Your task to perform on an android device: Go to location settings Image 0: 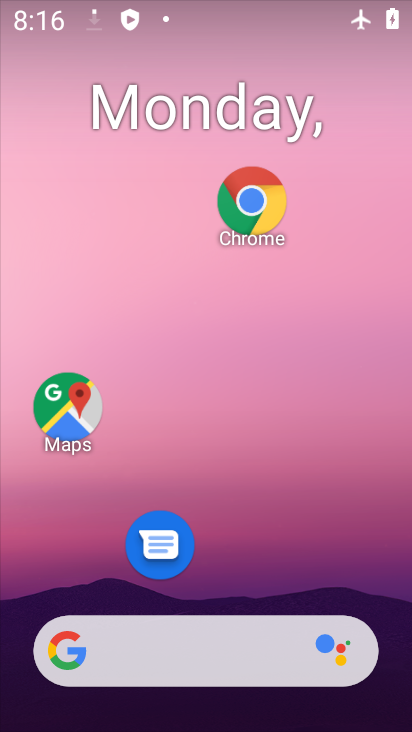
Step 0: drag from (224, 370) to (218, 35)
Your task to perform on an android device: Go to location settings Image 1: 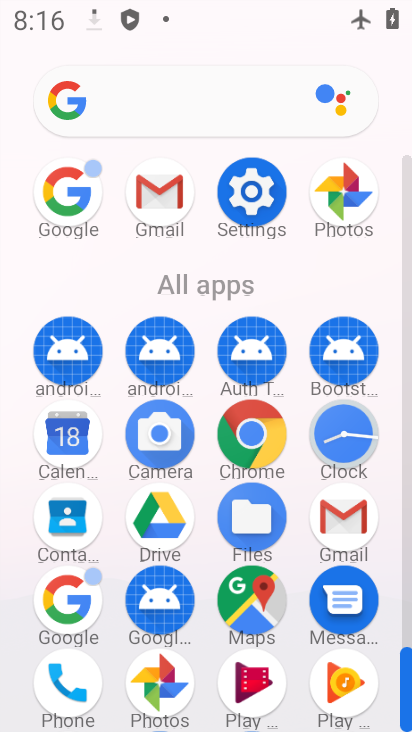
Step 1: click (250, 198)
Your task to perform on an android device: Go to location settings Image 2: 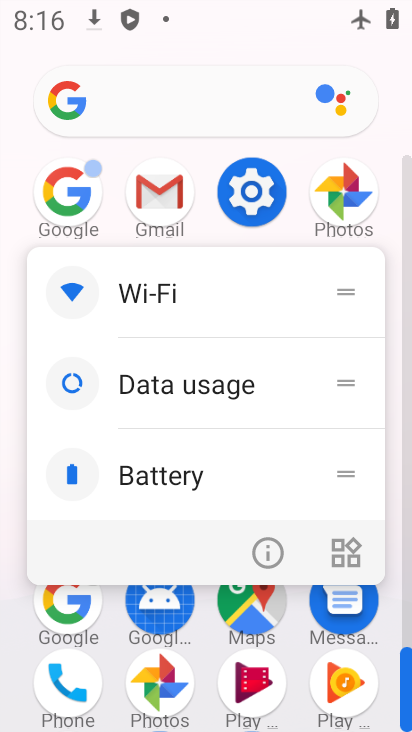
Step 2: click (246, 200)
Your task to perform on an android device: Go to location settings Image 3: 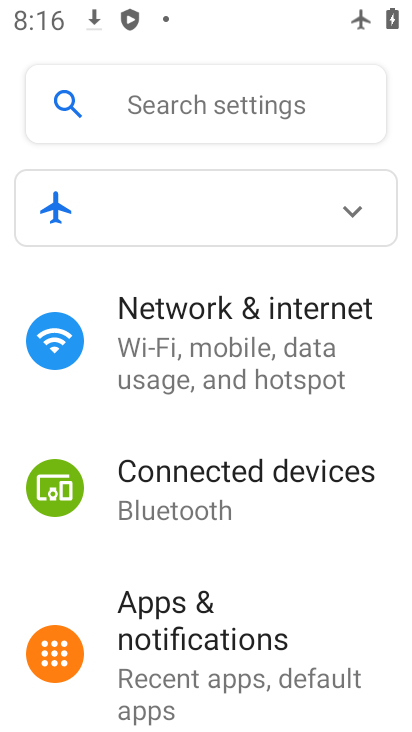
Step 3: drag from (279, 634) to (279, 265)
Your task to perform on an android device: Go to location settings Image 4: 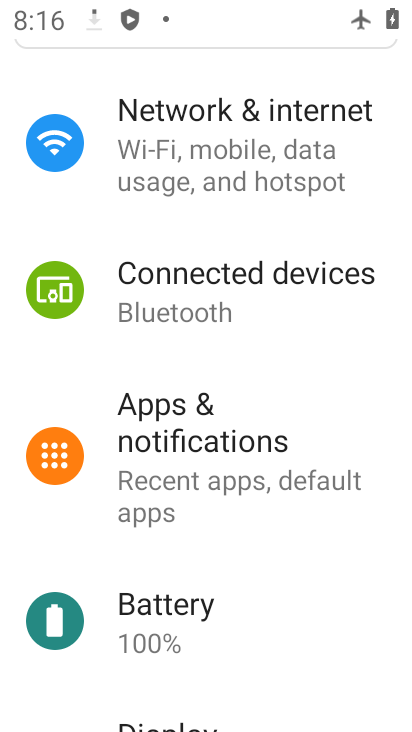
Step 4: drag from (276, 591) to (276, 200)
Your task to perform on an android device: Go to location settings Image 5: 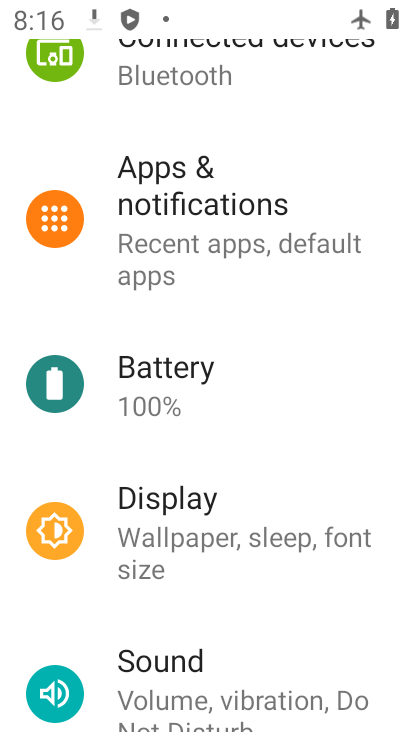
Step 5: drag from (267, 583) to (263, 219)
Your task to perform on an android device: Go to location settings Image 6: 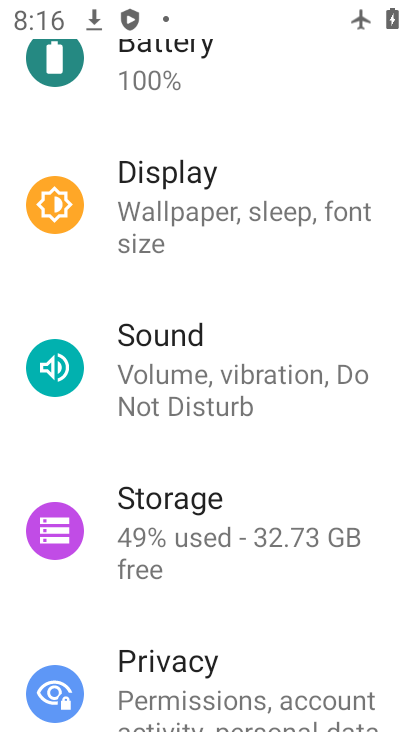
Step 6: drag from (253, 612) to (253, 250)
Your task to perform on an android device: Go to location settings Image 7: 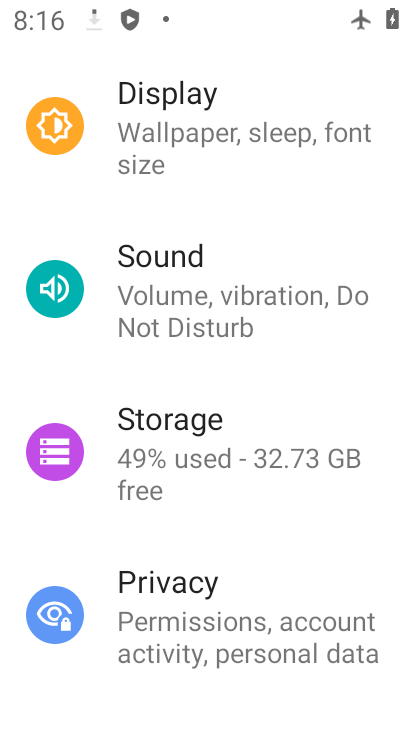
Step 7: drag from (247, 638) to (246, 253)
Your task to perform on an android device: Go to location settings Image 8: 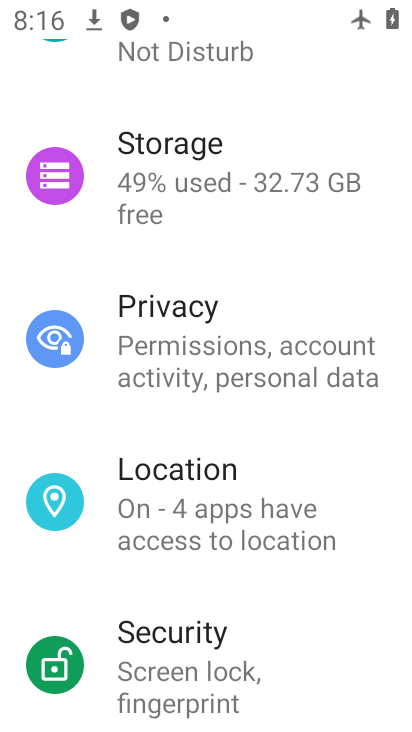
Step 8: click (214, 511)
Your task to perform on an android device: Go to location settings Image 9: 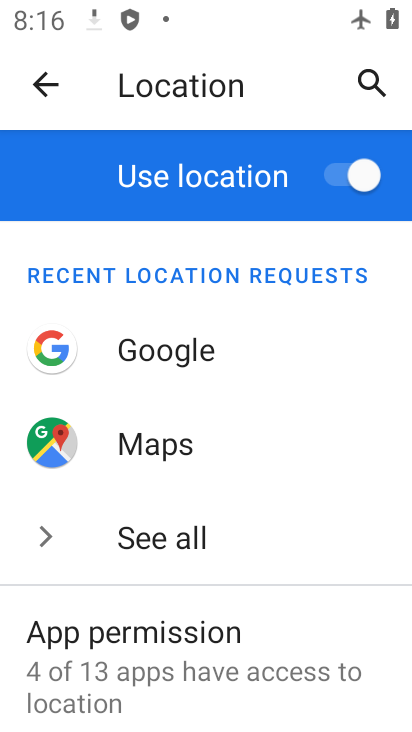
Step 9: task complete